Your task to perform on an android device: Go to notification settings Image 0: 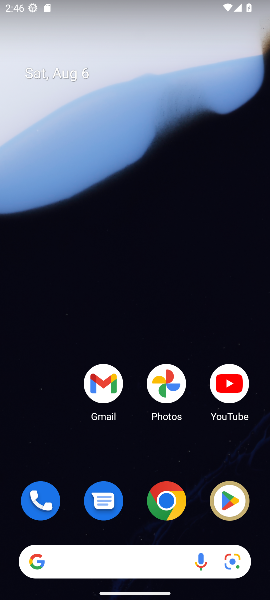
Step 0: drag from (195, 439) to (241, 31)
Your task to perform on an android device: Go to notification settings Image 1: 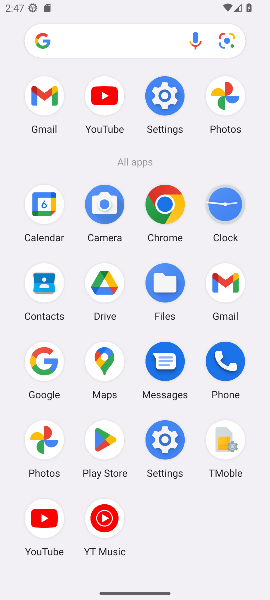
Step 1: click (172, 444)
Your task to perform on an android device: Go to notification settings Image 2: 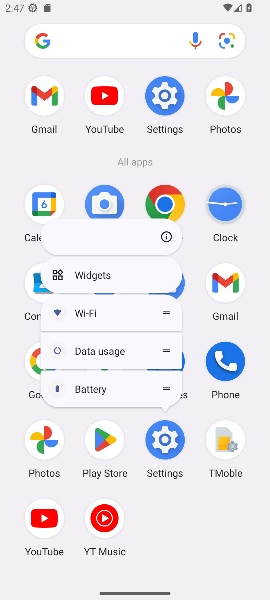
Step 2: click (172, 440)
Your task to perform on an android device: Go to notification settings Image 3: 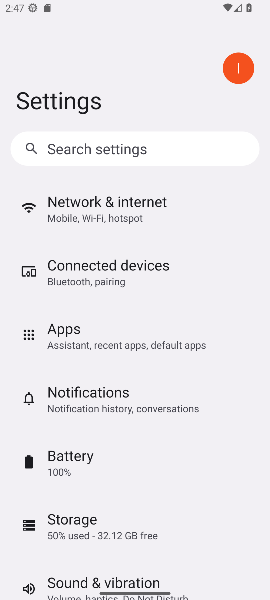
Step 3: click (92, 397)
Your task to perform on an android device: Go to notification settings Image 4: 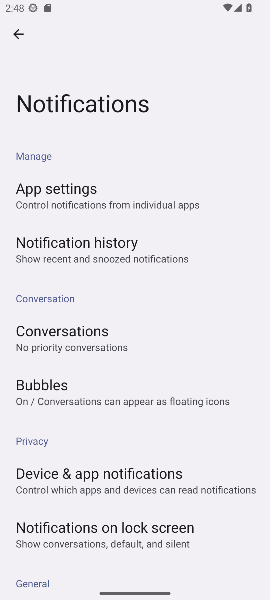
Step 4: task complete